Your task to perform on an android device: Go to CNN.com Image 0: 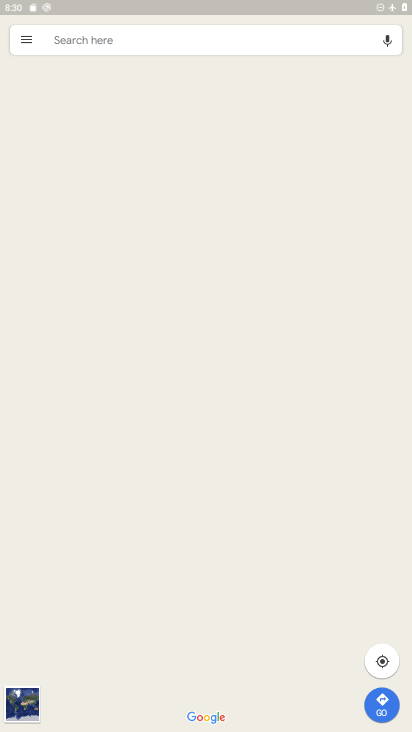
Step 0: press home button
Your task to perform on an android device: Go to CNN.com Image 1: 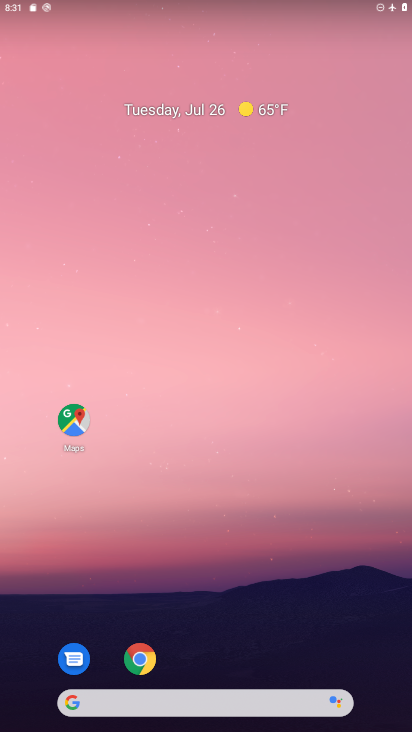
Step 1: click (130, 659)
Your task to perform on an android device: Go to CNN.com Image 2: 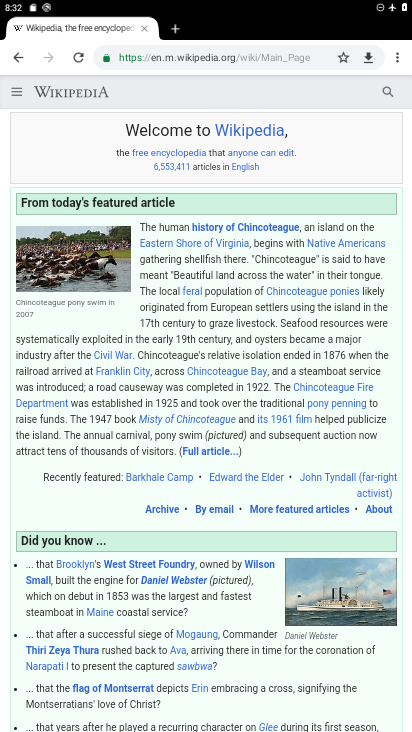
Step 2: click (188, 56)
Your task to perform on an android device: Go to CNN.com Image 3: 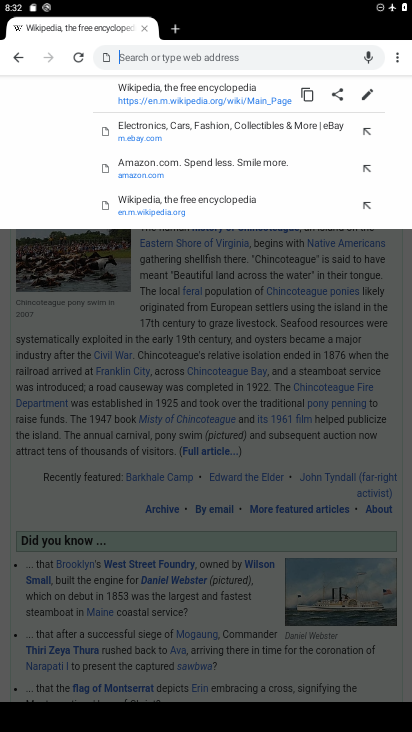
Step 3: type "www.cnn.com"
Your task to perform on an android device: Go to CNN.com Image 4: 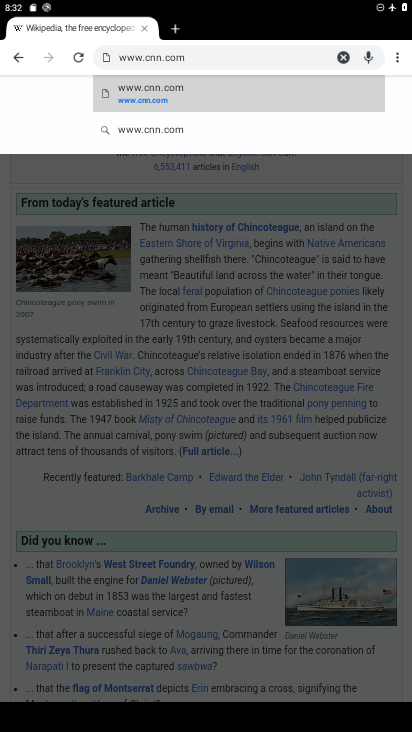
Step 4: click (120, 90)
Your task to perform on an android device: Go to CNN.com Image 5: 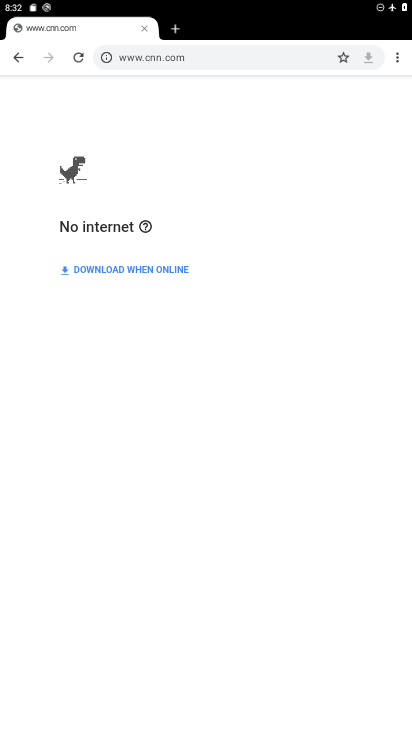
Step 5: task complete